Your task to perform on an android device: Open location settings Image 0: 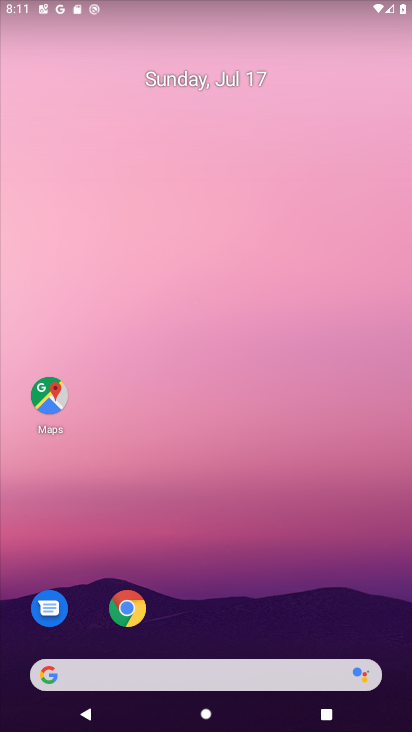
Step 0: drag from (173, 653) to (173, 320)
Your task to perform on an android device: Open location settings Image 1: 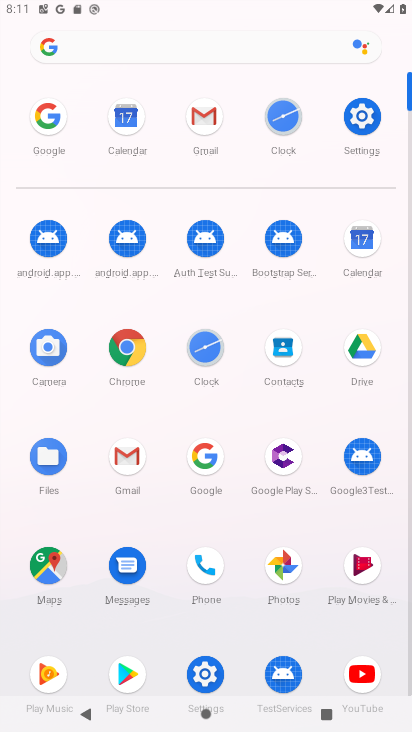
Step 1: click (364, 112)
Your task to perform on an android device: Open location settings Image 2: 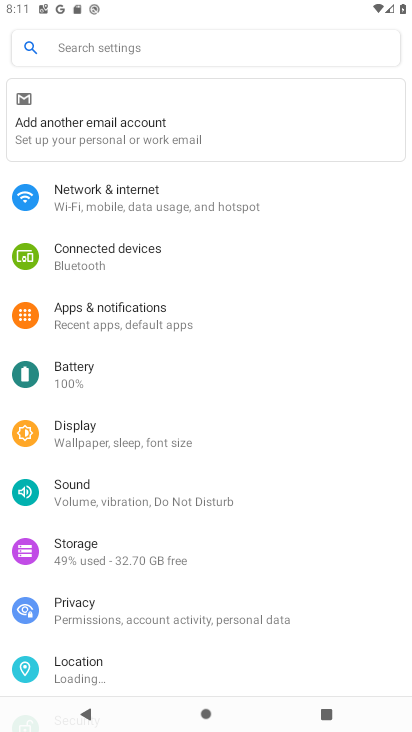
Step 2: click (82, 674)
Your task to perform on an android device: Open location settings Image 3: 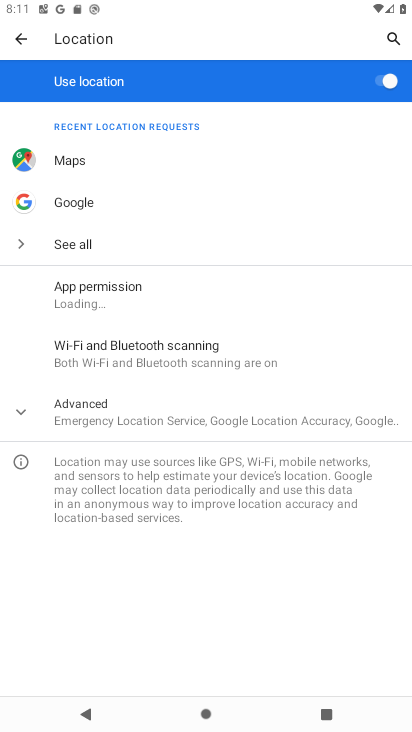
Step 3: click (82, 677)
Your task to perform on an android device: Open location settings Image 4: 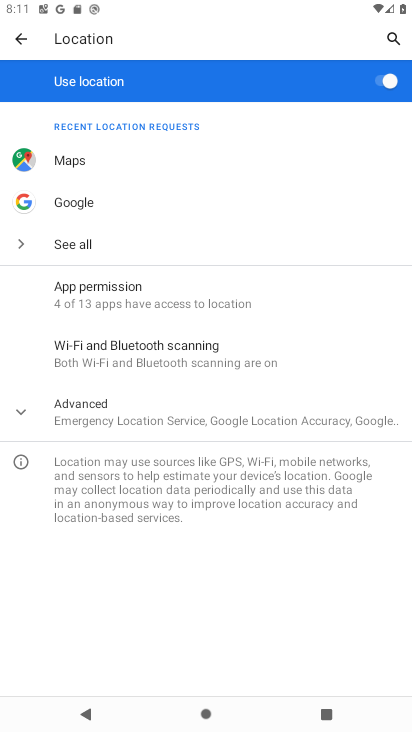
Step 4: click (39, 413)
Your task to perform on an android device: Open location settings Image 5: 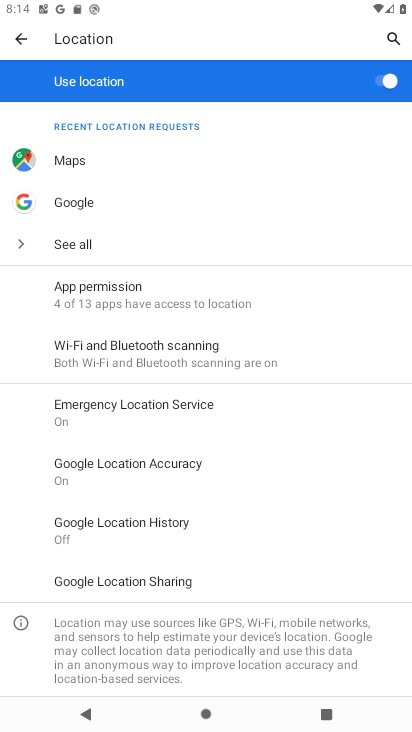
Step 5: task complete